Your task to perform on an android device: remove spam from my inbox in the gmail app Image 0: 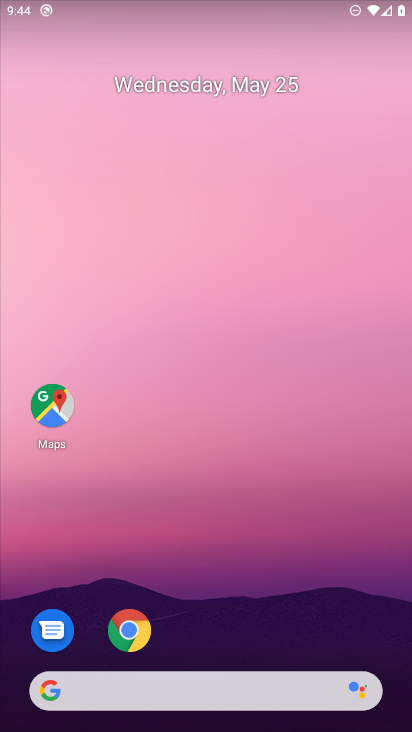
Step 0: drag from (179, 671) to (225, 218)
Your task to perform on an android device: remove spam from my inbox in the gmail app Image 1: 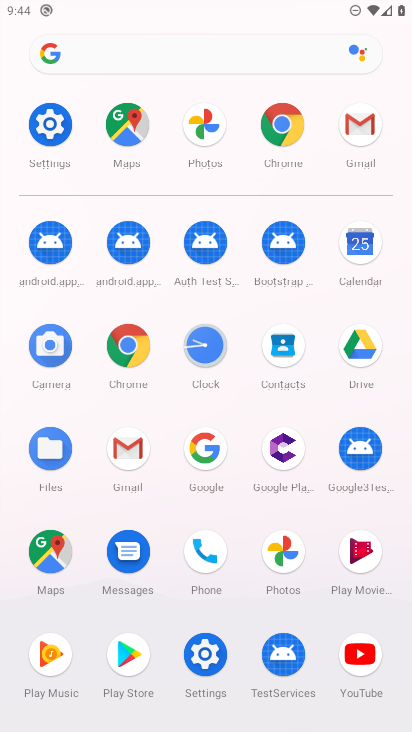
Step 1: click (120, 448)
Your task to perform on an android device: remove spam from my inbox in the gmail app Image 2: 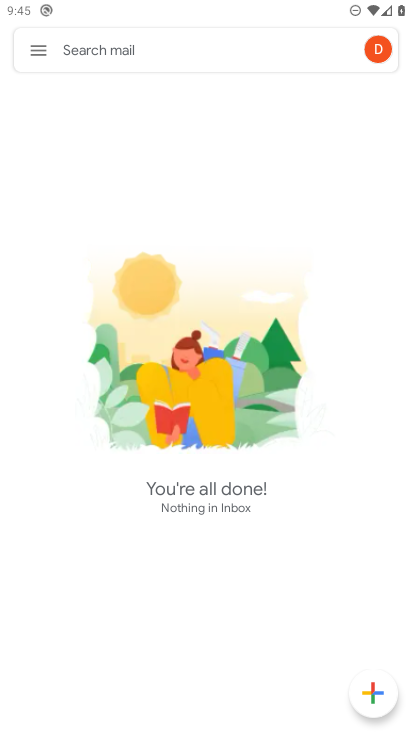
Step 2: click (43, 46)
Your task to perform on an android device: remove spam from my inbox in the gmail app Image 3: 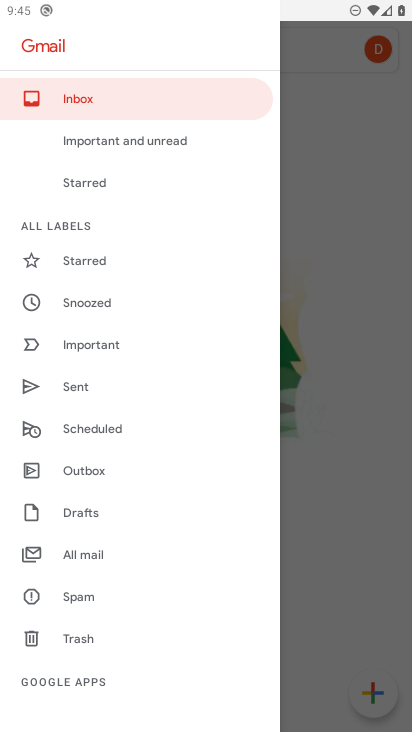
Step 3: click (85, 586)
Your task to perform on an android device: remove spam from my inbox in the gmail app Image 4: 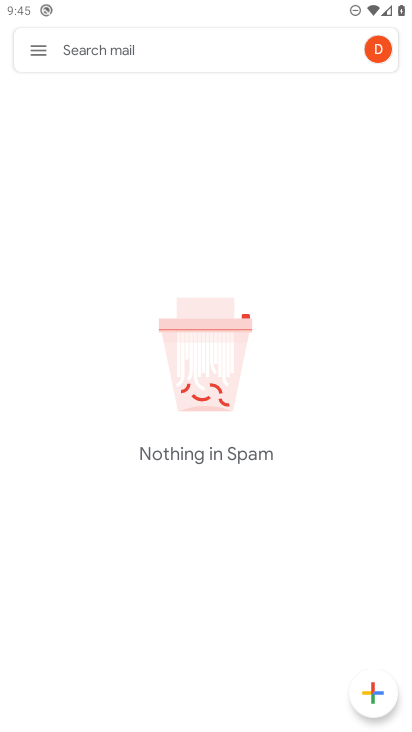
Step 4: task complete